Your task to perform on an android device: Go to Android settings Image 0: 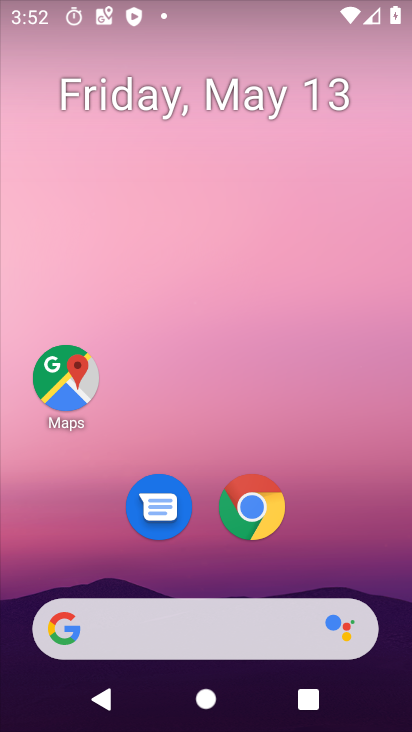
Step 0: drag from (297, 533) to (304, 188)
Your task to perform on an android device: Go to Android settings Image 1: 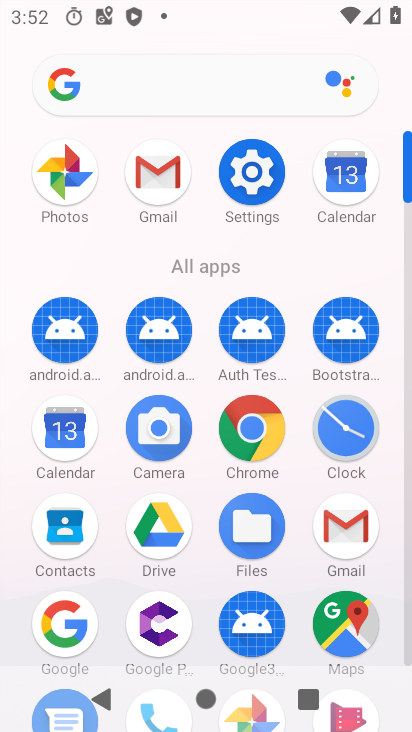
Step 1: click (249, 168)
Your task to perform on an android device: Go to Android settings Image 2: 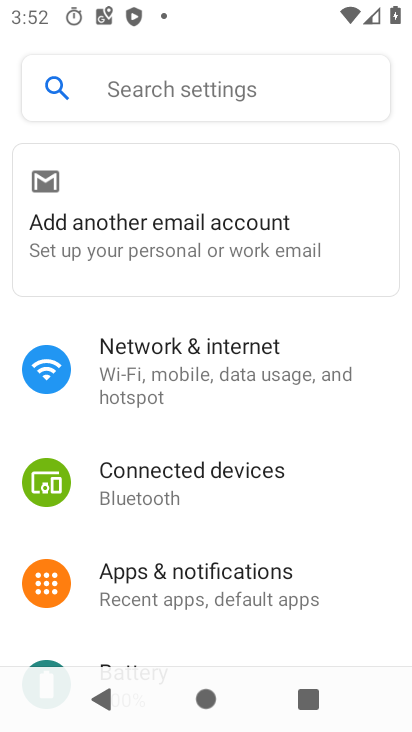
Step 2: task complete